Your task to perform on an android device: turn on data saver in the chrome app Image 0: 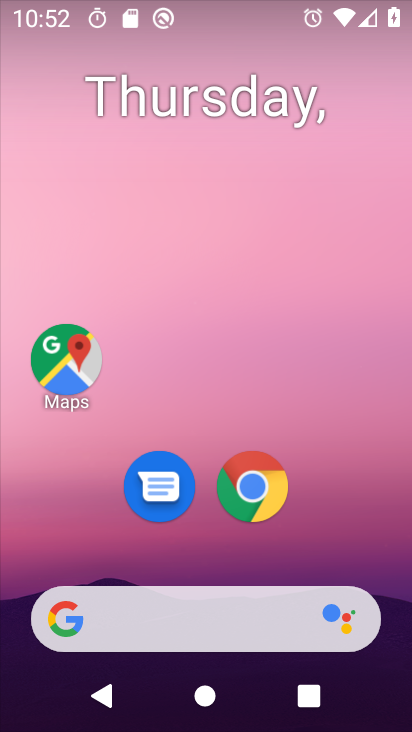
Step 0: click (247, 491)
Your task to perform on an android device: turn on data saver in the chrome app Image 1: 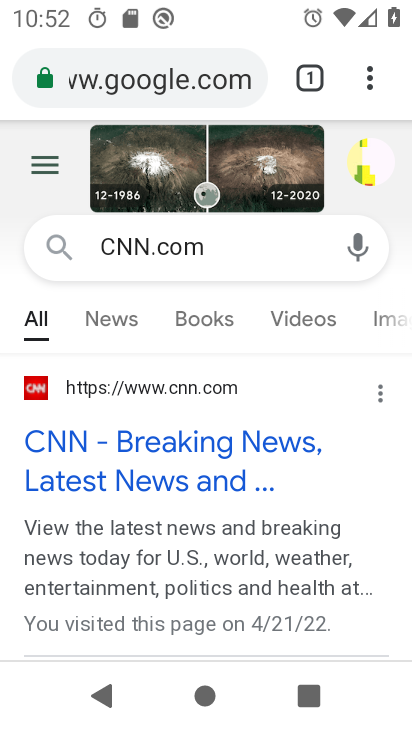
Step 1: click (365, 76)
Your task to perform on an android device: turn on data saver in the chrome app Image 2: 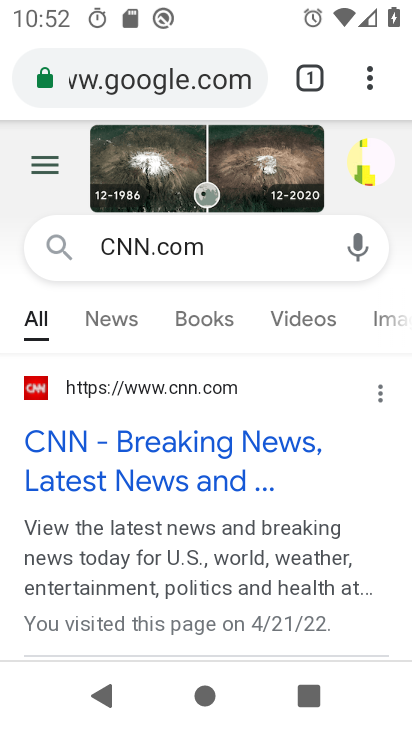
Step 2: click (365, 77)
Your task to perform on an android device: turn on data saver in the chrome app Image 3: 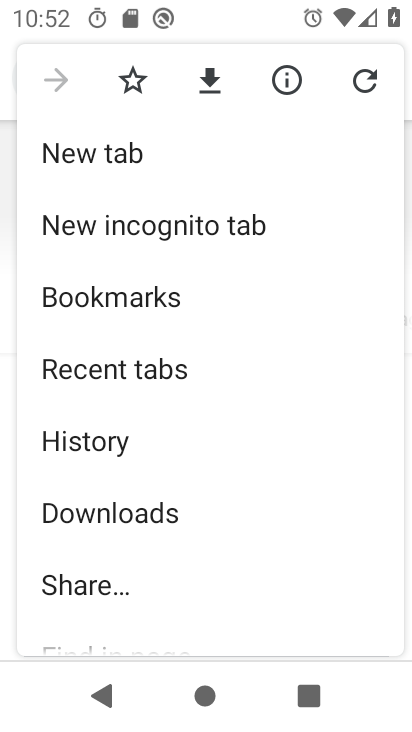
Step 3: drag from (257, 596) to (286, 120)
Your task to perform on an android device: turn on data saver in the chrome app Image 4: 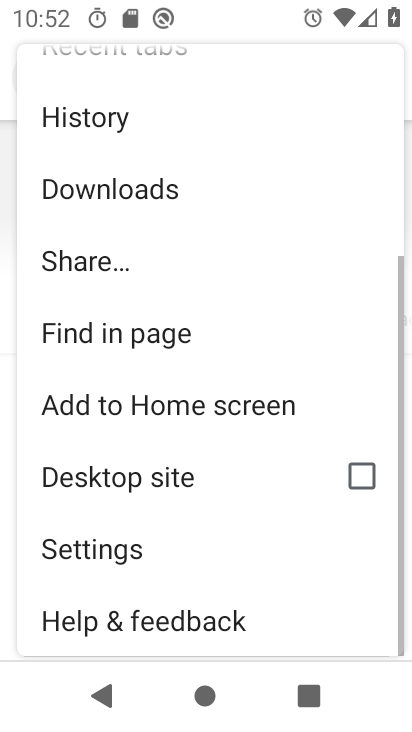
Step 4: drag from (239, 540) to (272, 241)
Your task to perform on an android device: turn on data saver in the chrome app Image 5: 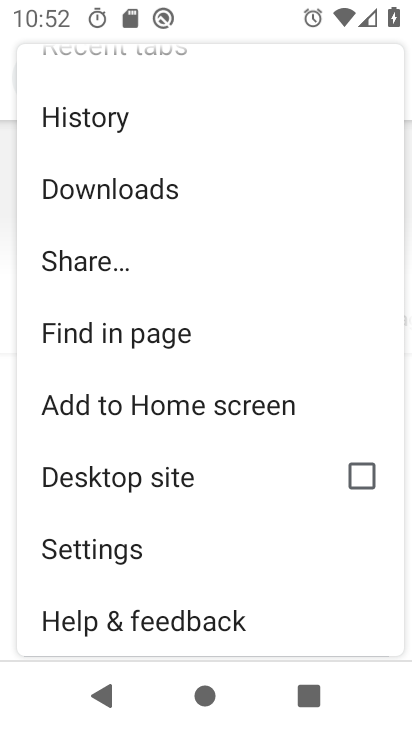
Step 5: drag from (242, 607) to (277, 223)
Your task to perform on an android device: turn on data saver in the chrome app Image 6: 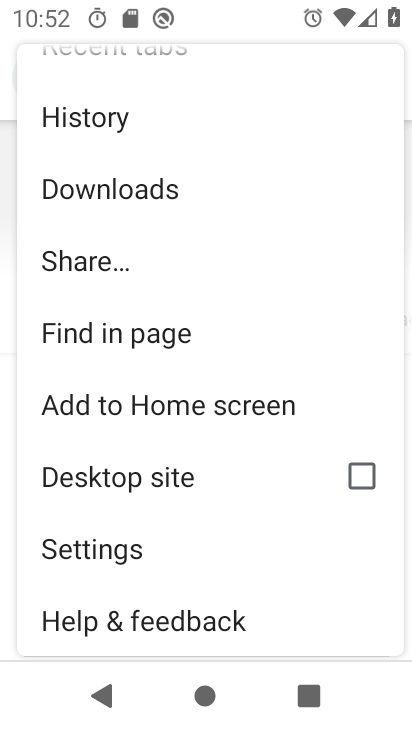
Step 6: drag from (221, 629) to (236, 363)
Your task to perform on an android device: turn on data saver in the chrome app Image 7: 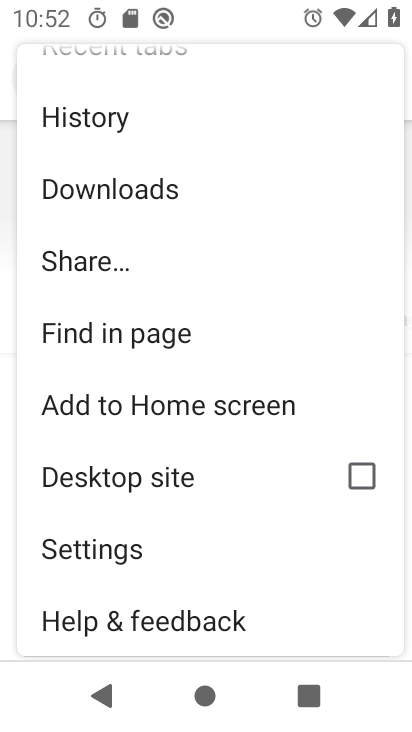
Step 7: drag from (257, 625) to (275, 341)
Your task to perform on an android device: turn on data saver in the chrome app Image 8: 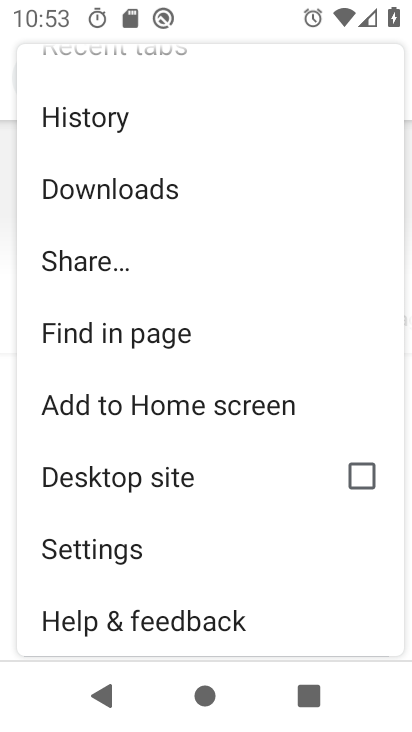
Step 8: click (91, 551)
Your task to perform on an android device: turn on data saver in the chrome app Image 9: 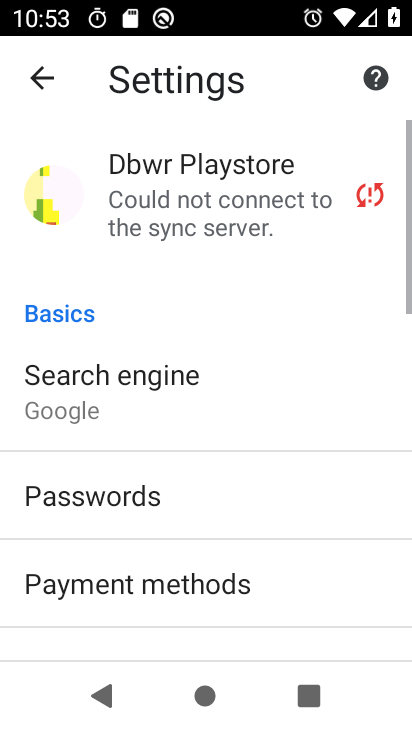
Step 9: drag from (275, 578) to (284, 255)
Your task to perform on an android device: turn on data saver in the chrome app Image 10: 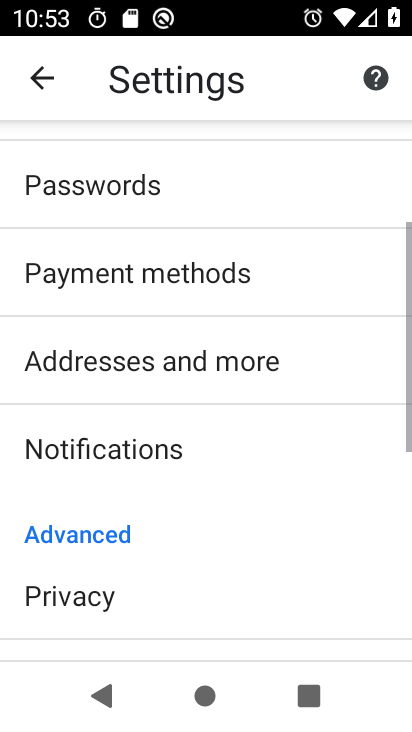
Step 10: click (314, 230)
Your task to perform on an android device: turn on data saver in the chrome app Image 11: 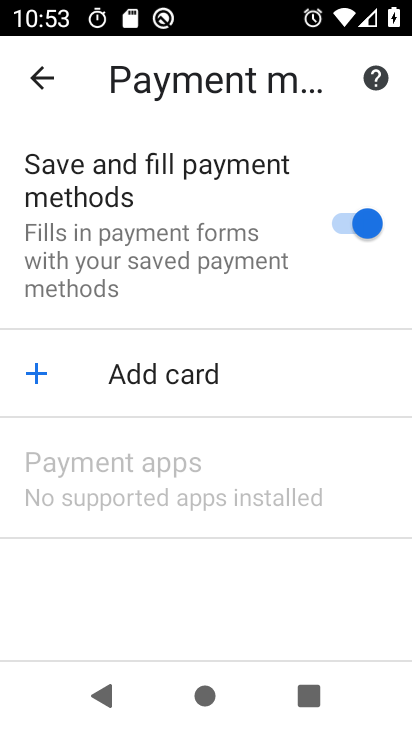
Step 11: click (39, 79)
Your task to perform on an android device: turn on data saver in the chrome app Image 12: 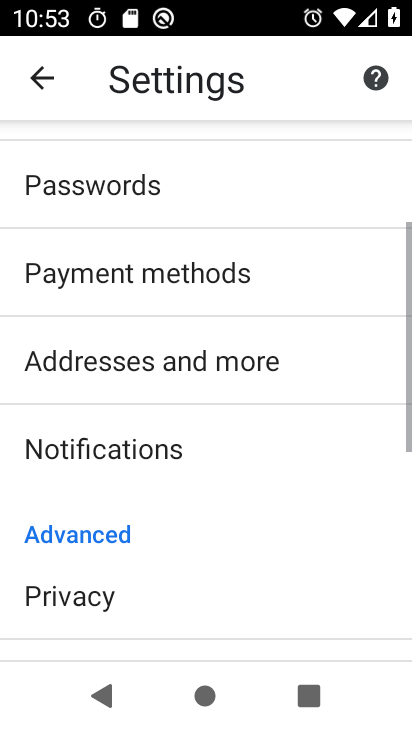
Step 12: drag from (294, 604) to (315, 216)
Your task to perform on an android device: turn on data saver in the chrome app Image 13: 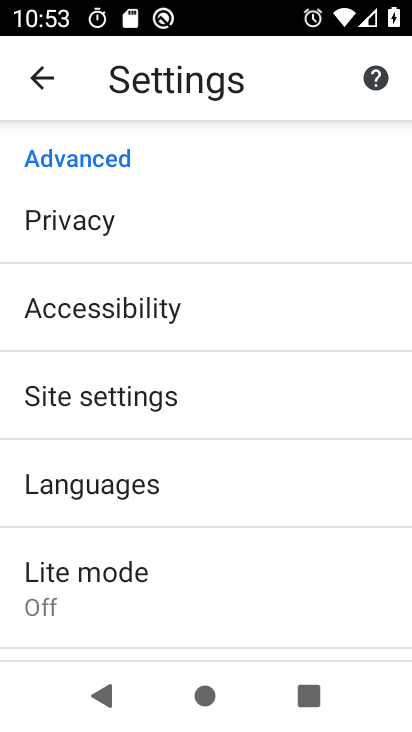
Step 13: click (94, 567)
Your task to perform on an android device: turn on data saver in the chrome app Image 14: 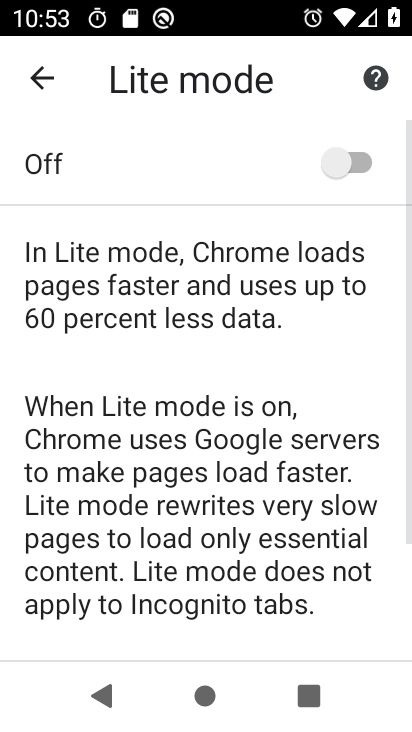
Step 14: click (363, 163)
Your task to perform on an android device: turn on data saver in the chrome app Image 15: 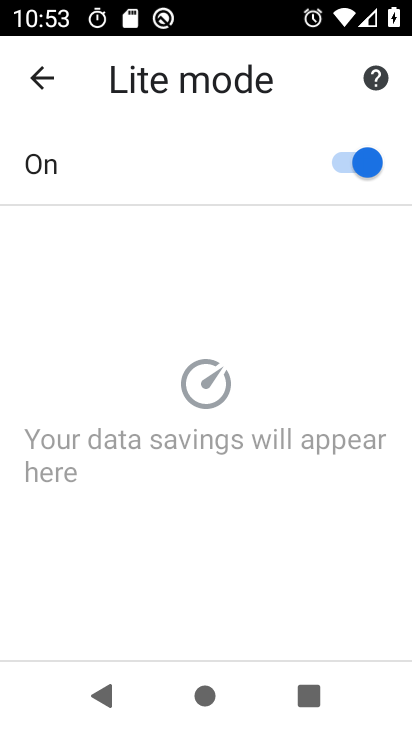
Step 15: task complete